Your task to perform on an android device: see sites visited before in the chrome app Image 0: 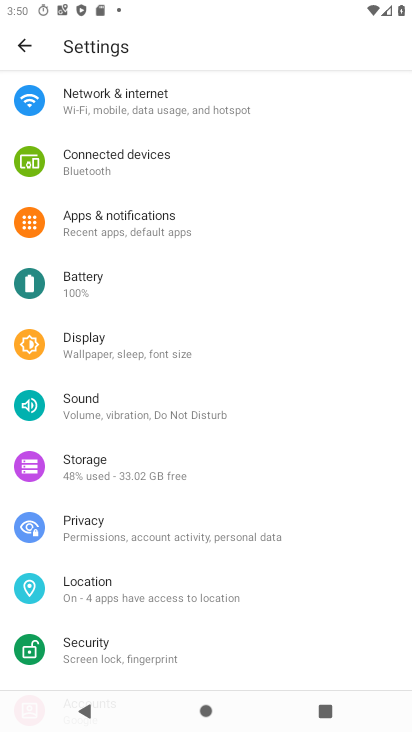
Step 0: press home button
Your task to perform on an android device: see sites visited before in the chrome app Image 1: 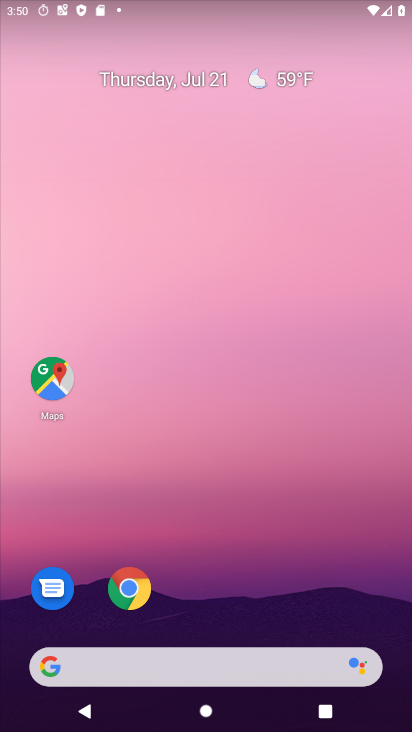
Step 1: click (137, 583)
Your task to perform on an android device: see sites visited before in the chrome app Image 2: 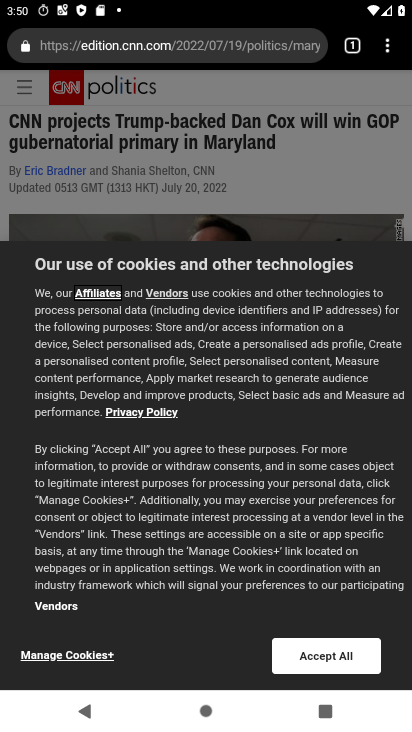
Step 2: click (387, 52)
Your task to perform on an android device: see sites visited before in the chrome app Image 3: 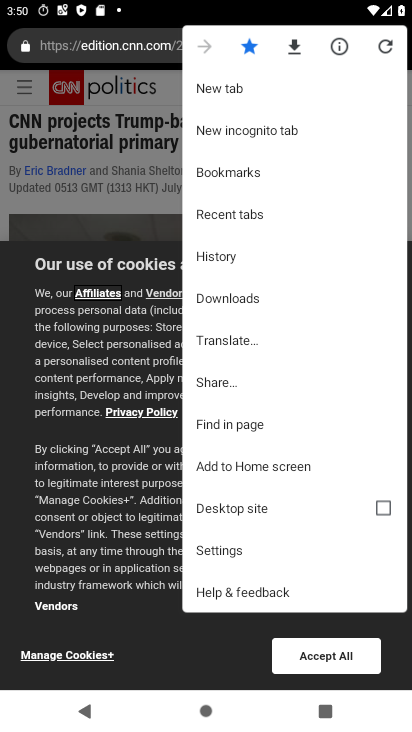
Step 3: click (230, 262)
Your task to perform on an android device: see sites visited before in the chrome app Image 4: 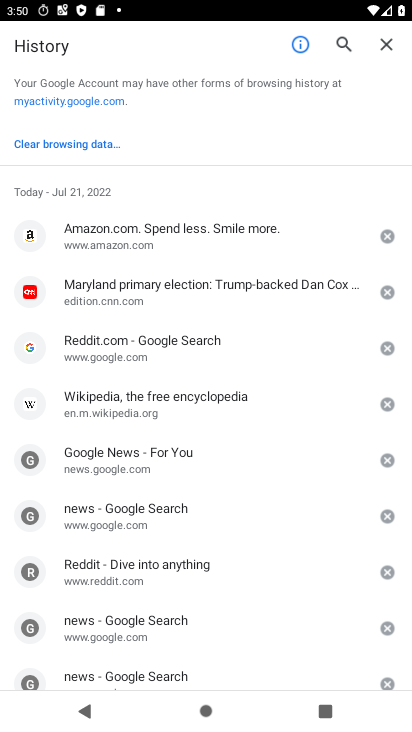
Step 4: task complete